Your task to perform on an android device: When is my next meeting? Image 0: 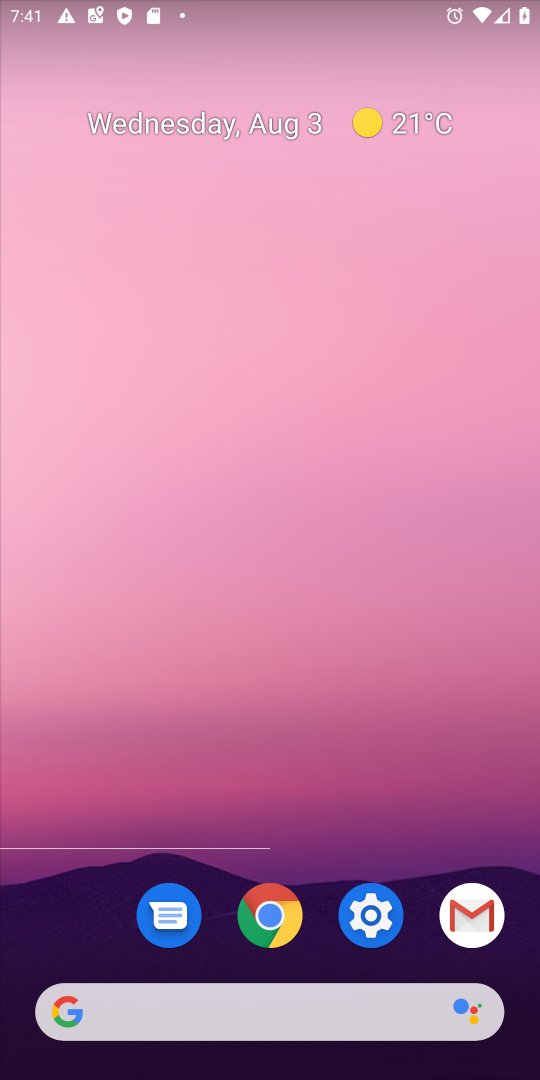
Step 0: press home button
Your task to perform on an android device: When is my next meeting? Image 1: 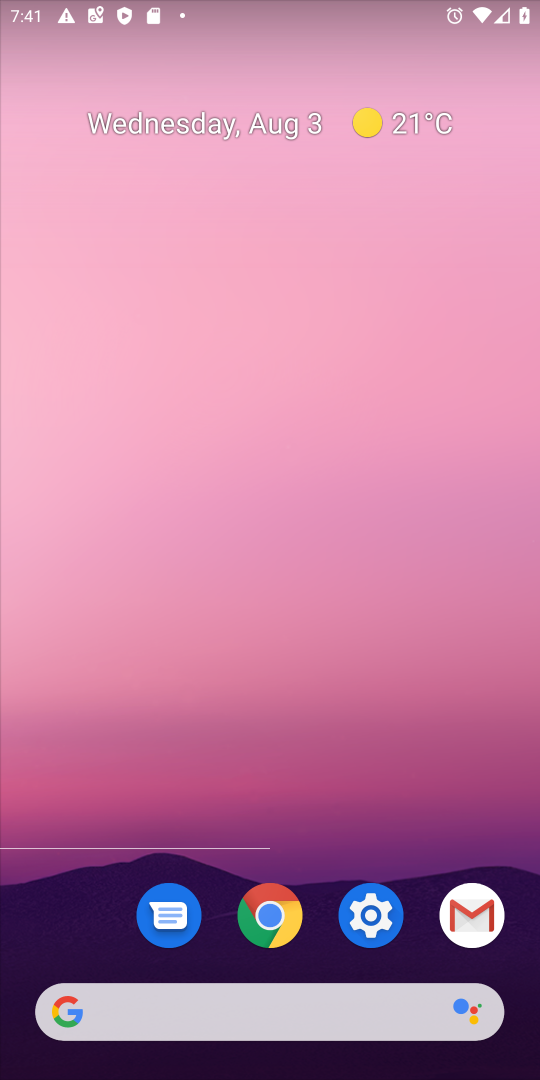
Step 1: drag from (346, 1036) to (298, 126)
Your task to perform on an android device: When is my next meeting? Image 2: 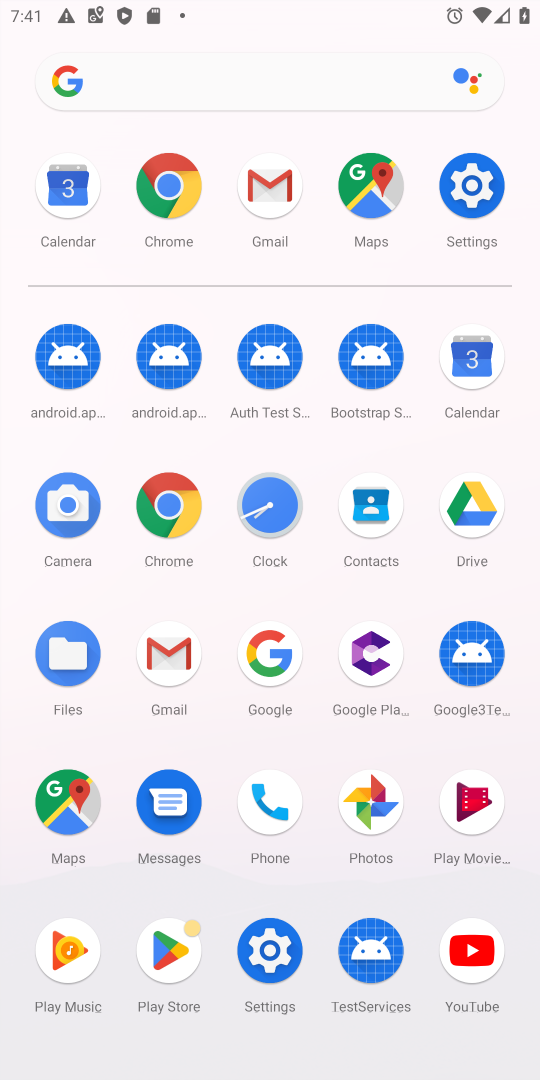
Step 2: click (496, 385)
Your task to perform on an android device: When is my next meeting? Image 3: 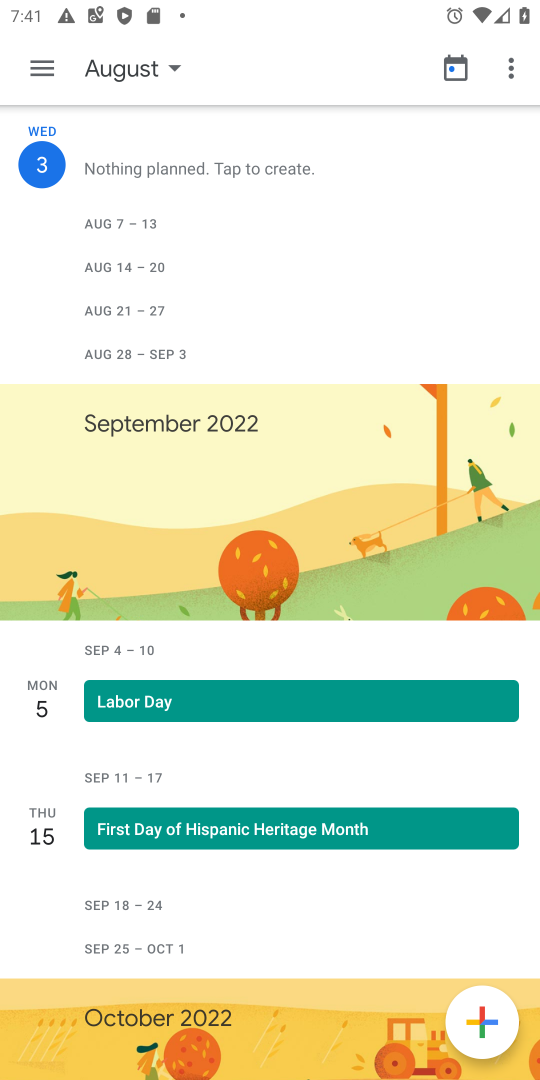
Step 3: click (45, 67)
Your task to perform on an android device: When is my next meeting? Image 4: 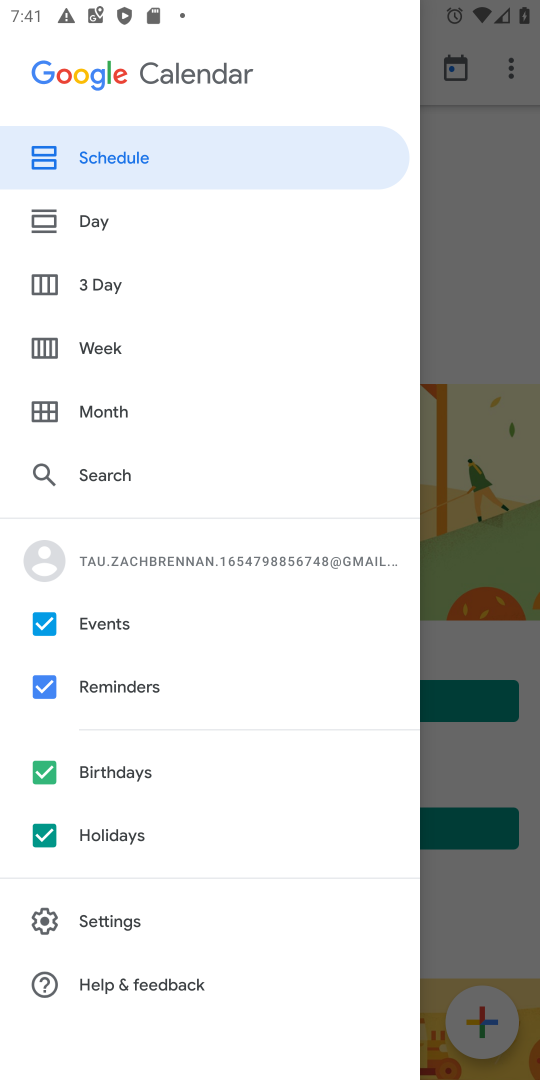
Step 4: click (125, 161)
Your task to perform on an android device: When is my next meeting? Image 5: 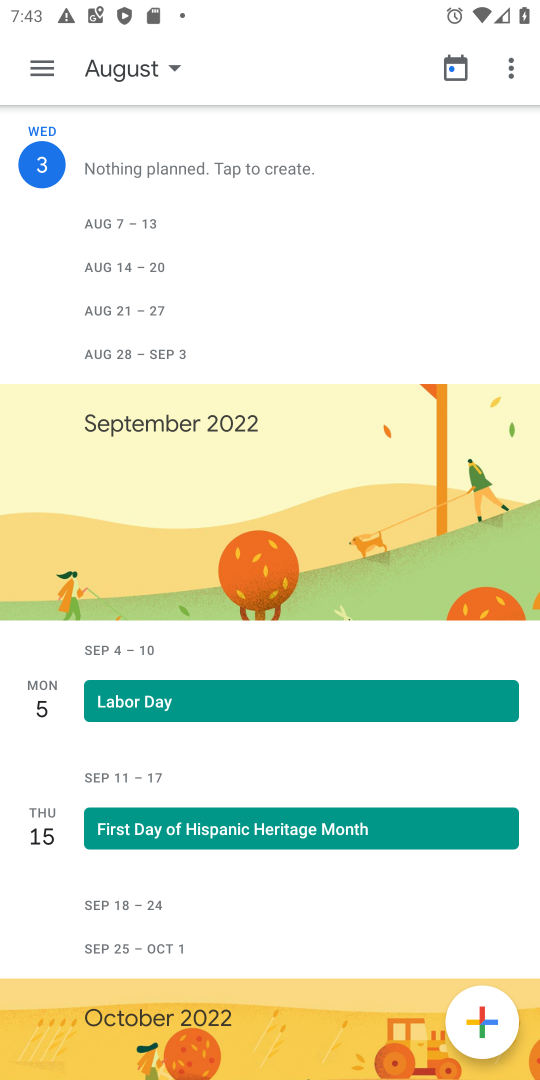
Step 5: task complete